Your task to perform on an android device: Show me the alarms in the clock app Image 0: 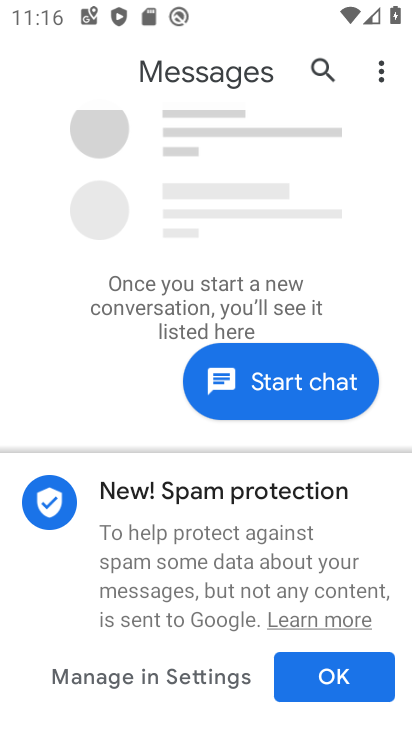
Step 0: press home button
Your task to perform on an android device: Show me the alarms in the clock app Image 1: 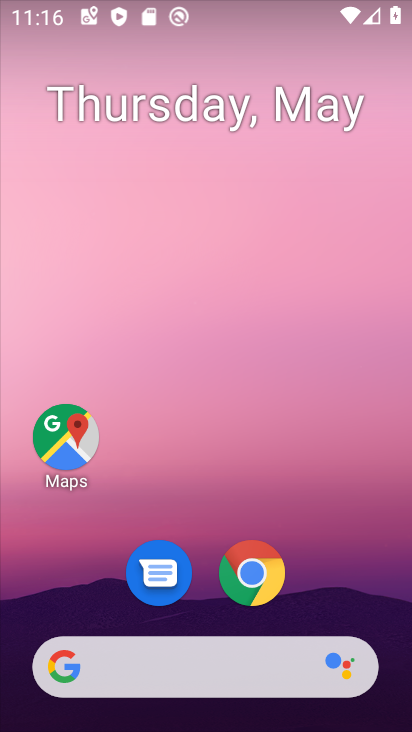
Step 1: drag from (330, 552) to (257, 109)
Your task to perform on an android device: Show me the alarms in the clock app Image 2: 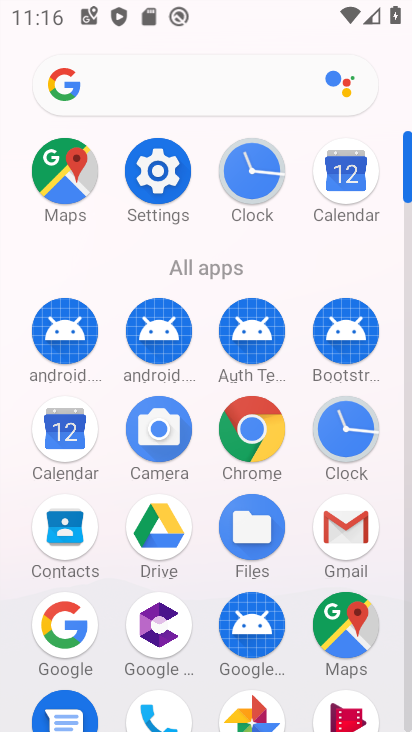
Step 2: click (257, 182)
Your task to perform on an android device: Show me the alarms in the clock app Image 3: 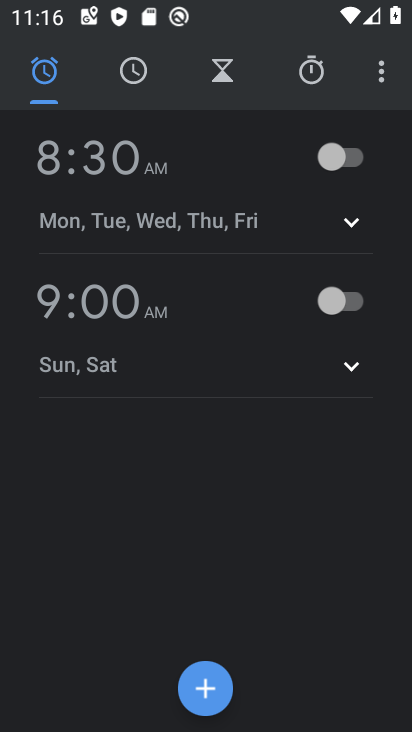
Step 3: task complete